Your task to perform on an android device: allow notifications from all sites in the chrome app Image 0: 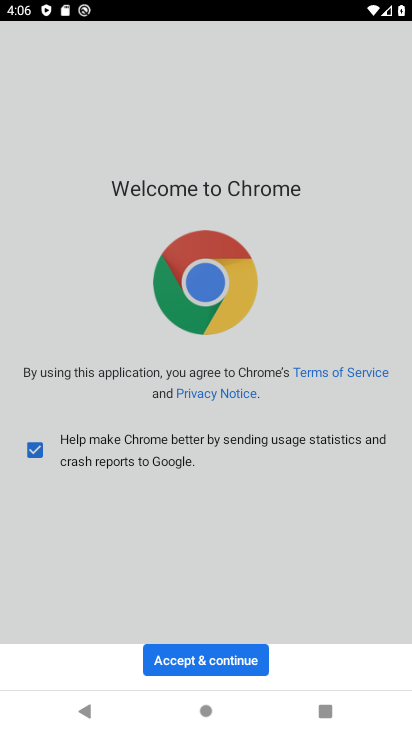
Step 0: click (193, 656)
Your task to perform on an android device: allow notifications from all sites in the chrome app Image 1: 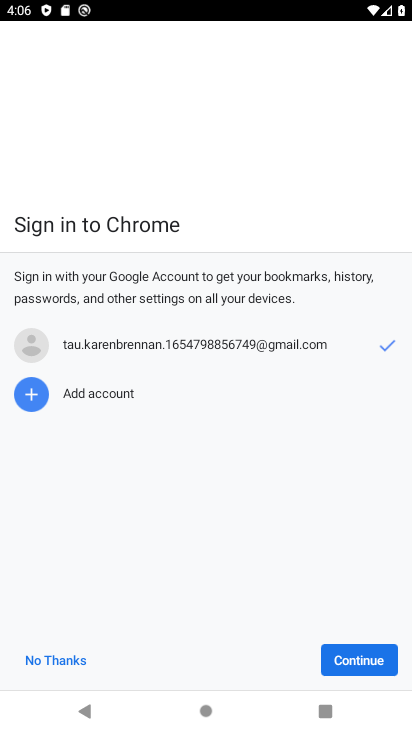
Step 1: click (370, 653)
Your task to perform on an android device: allow notifications from all sites in the chrome app Image 2: 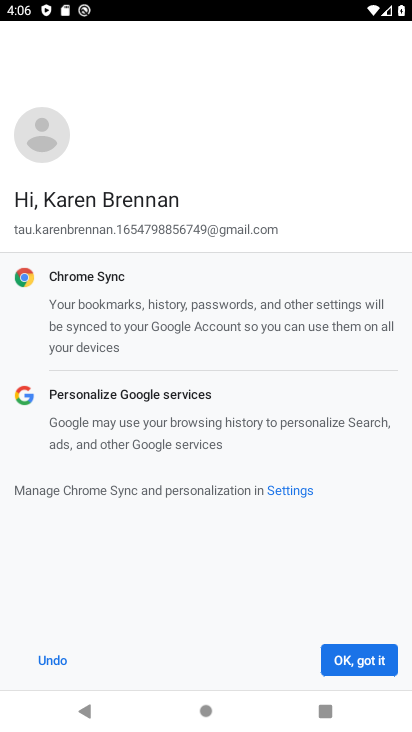
Step 2: click (375, 655)
Your task to perform on an android device: allow notifications from all sites in the chrome app Image 3: 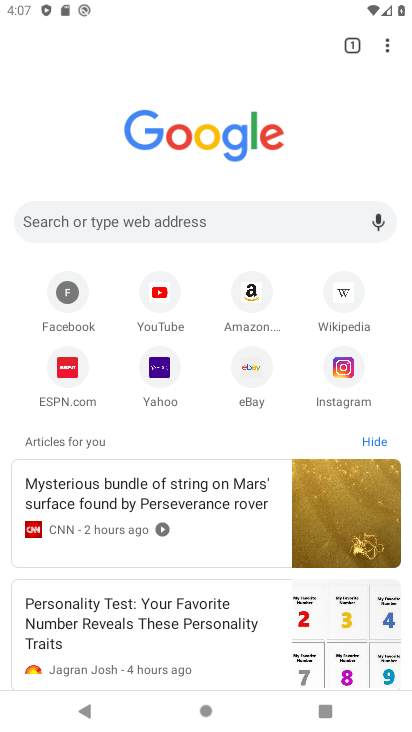
Step 3: task complete